Your task to perform on an android device: Go to Android settings Image 0: 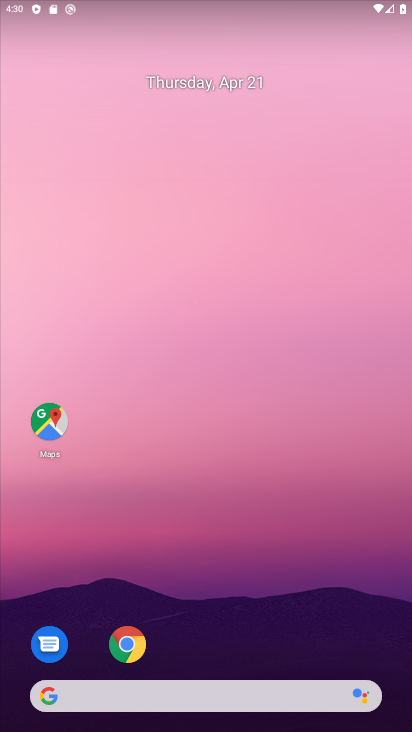
Step 0: drag from (217, 647) to (208, 184)
Your task to perform on an android device: Go to Android settings Image 1: 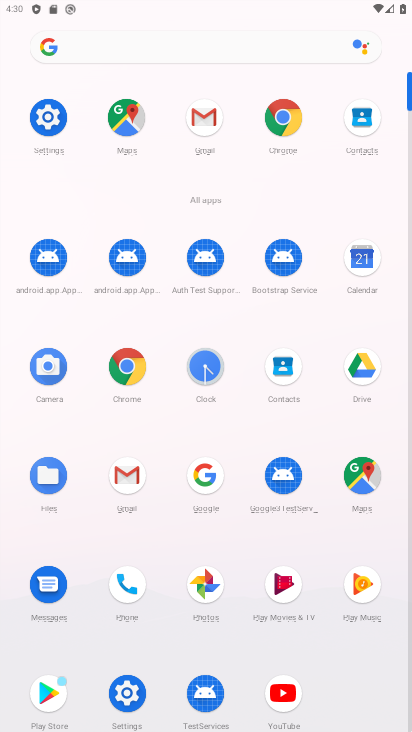
Step 1: click (48, 119)
Your task to perform on an android device: Go to Android settings Image 2: 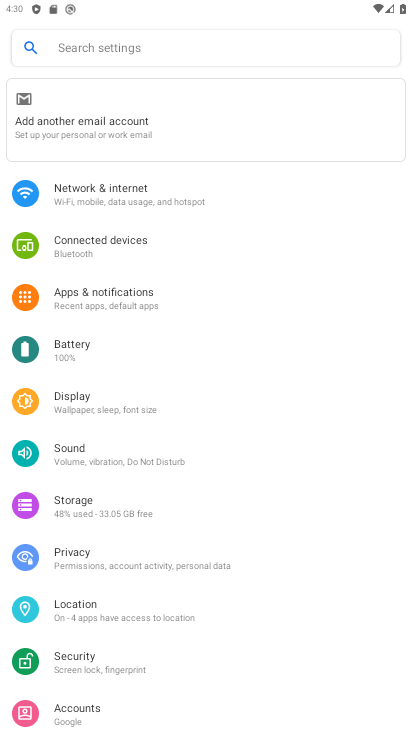
Step 2: task complete